Your task to perform on an android device: turn on javascript in the chrome app Image 0: 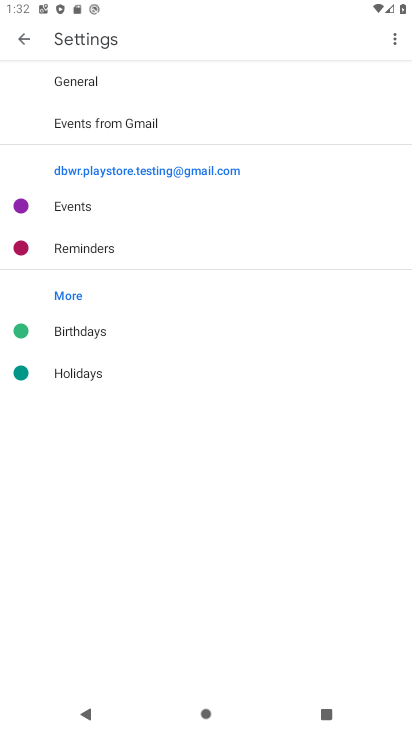
Step 0: press home button
Your task to perform on an android device: turn on javascript in the chrome app Image 1: 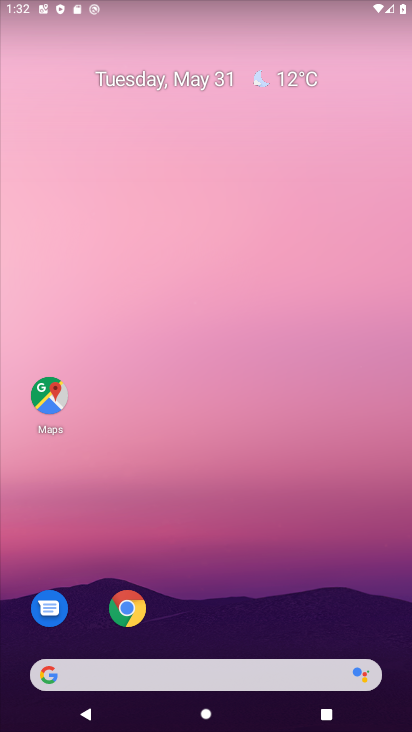
Step 1: drag from (316, 610) to (362, 0)
Your task to perform on an android device: turn on javascript in the chrome app Image 2: 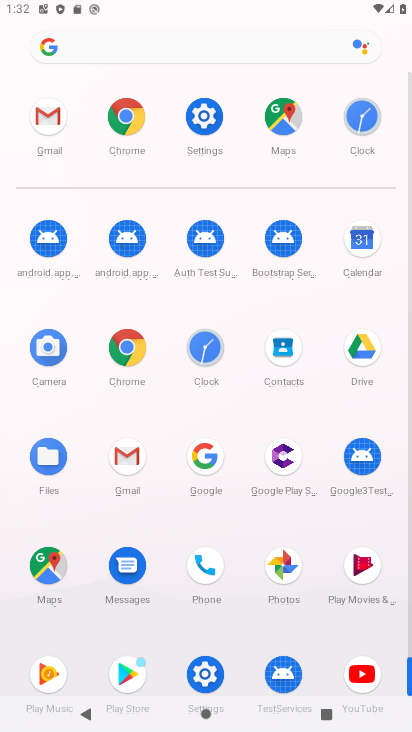
Step 2: drag from (214, 608) to (270, 269)
Your task to perform on an android device: turn on javascript in the chrome app Image 3: 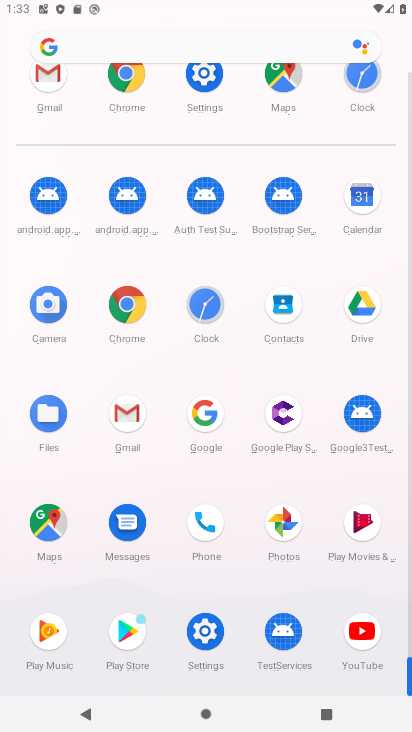
Step 3: drag from (249, 258) to (251, 653)
Your task to perform on an android device: turn on javascript in the chrome app Image 4: 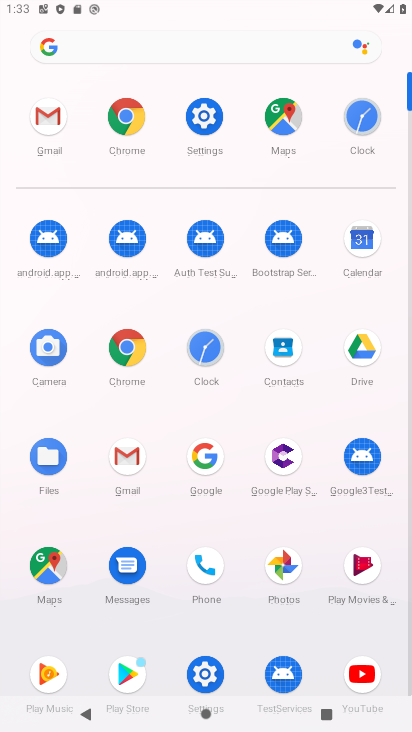
Step 4: click (121, 357)
Your task to perform on an android device: turn on javascript in the chrome app Image 5: 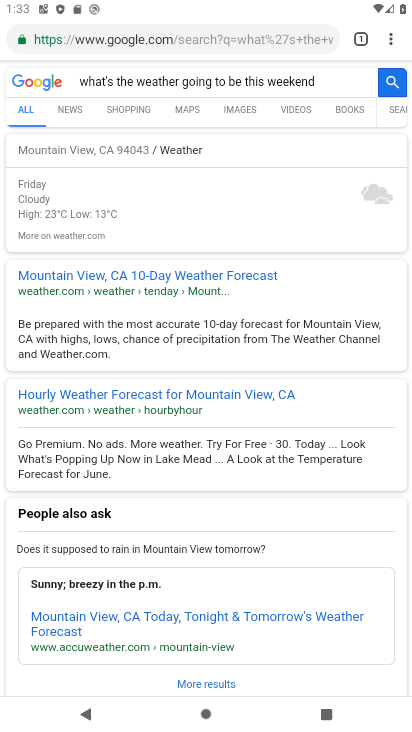
Step 5: click (387, 35)
Your task to perform on an android device: turn on javascript in the chrome app Image 6: 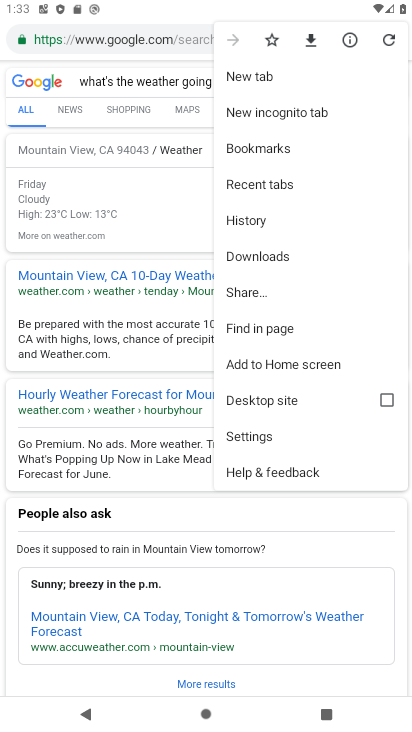
Step 6: click (286, 435)
Your task to perform on an android device: turn on javascript in the chrome app Image 7: 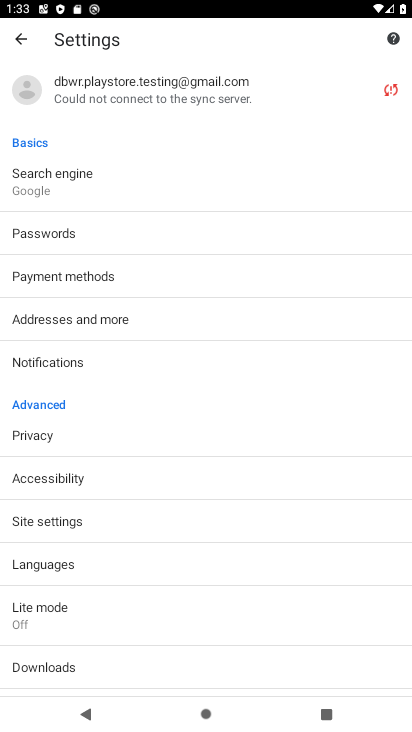
Step 7: click (112, 523)
Your task to perform on an android device: turn on javascript in the chrome app Image 8: 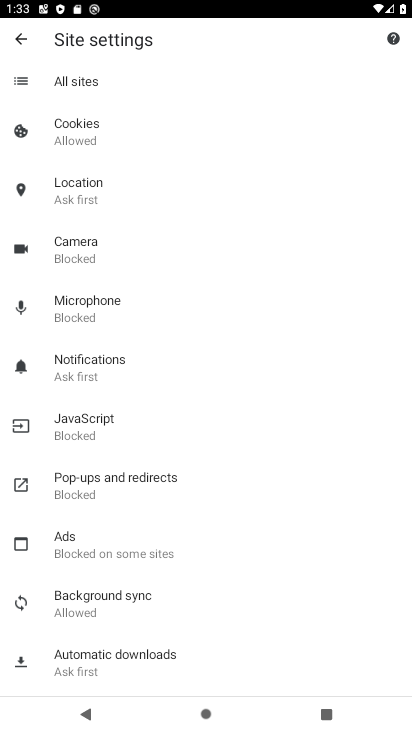
Step 8: click (133, 419)
Your task to perform on an android device: turn on javascript in the chrome app Image 9: 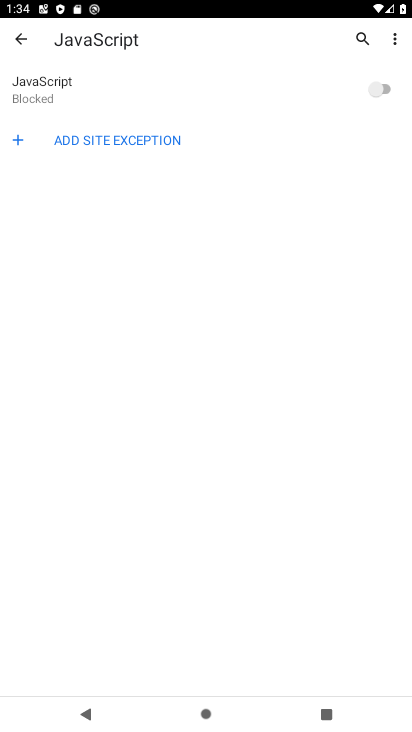
Step 9: click (391, 86)
Your task to perform on an android device: turn on javascript in the chrome app Image 10: 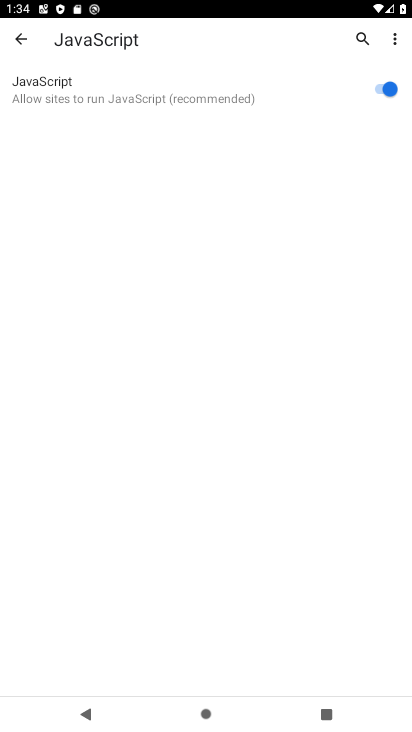
Step 10: task complete